Your task to perform on an android device: Open Android settings Image 0: 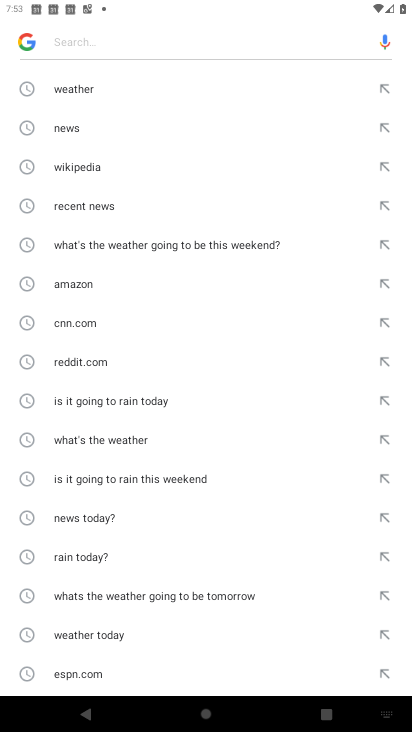
Step 0: press home button
Your task to perform on an android device: Open Android settings Image 1: 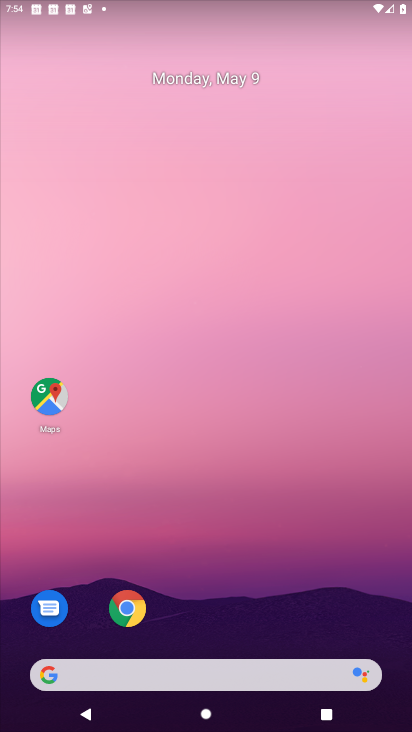
Step 1: drag from (285, 718) to (282, 10)
Your task to perform on an android device: Open Android settings Image 2: 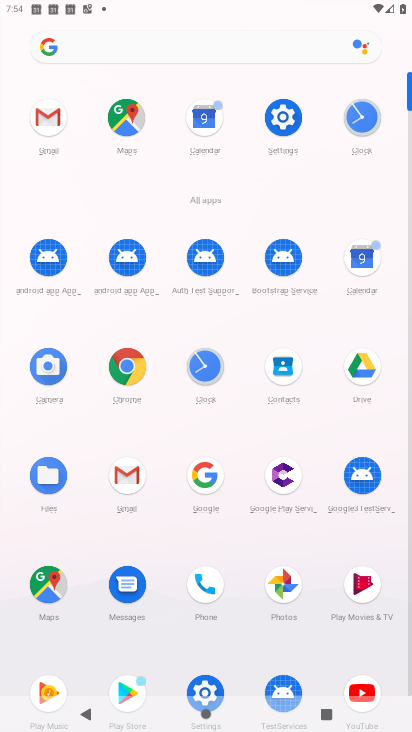
Step 2: click (255, 133)
Your task to perform on an android device: Open Android settings Image 3: 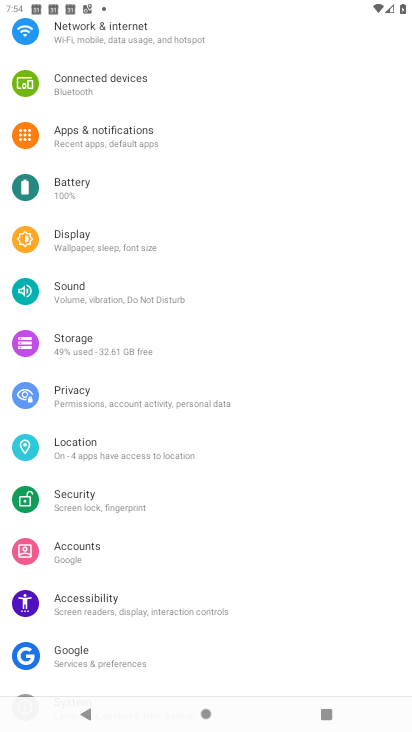
Step 3: task complete